Your task to perform on an android device: Show the shopping cart on ebay. Search for razer blade on ebay, select the first entry, add it to the cart, then select checkout. Image 0: 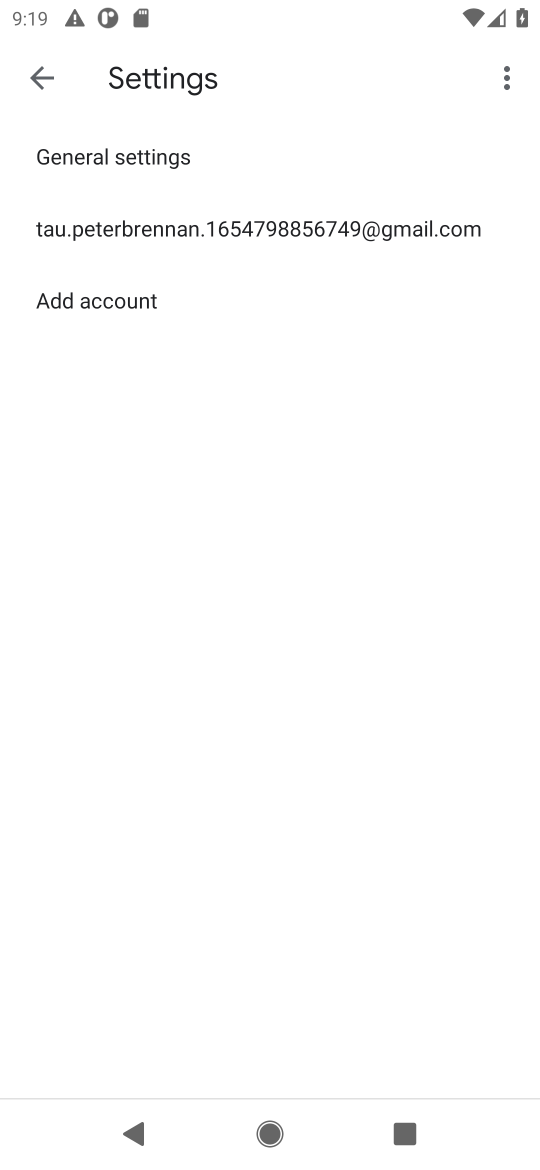
Step 0: press home button
Your task to perform on an android device: Show the shopping cart on ebay. Search for razer blade on ebay, select the first entry, add it to the cart, then select checkout. Image 1: 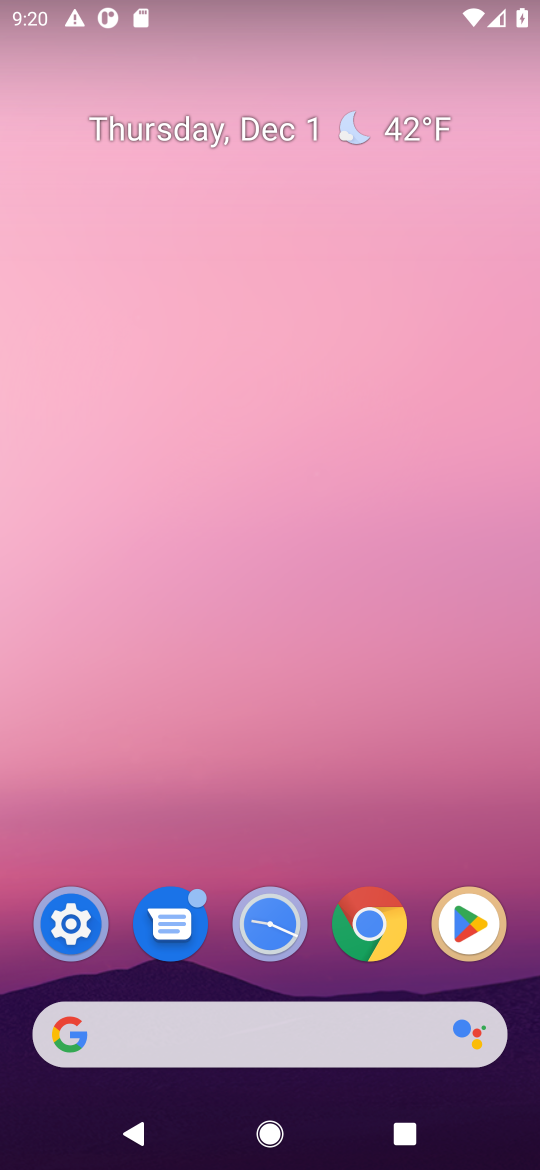
Step 1: click (226, 1056)
Your task to perform on an android device: Show the shopping cart on ebay. Search for razer blade on ebay, select the first entry, add it to the cart, then select checkout. Image 2: 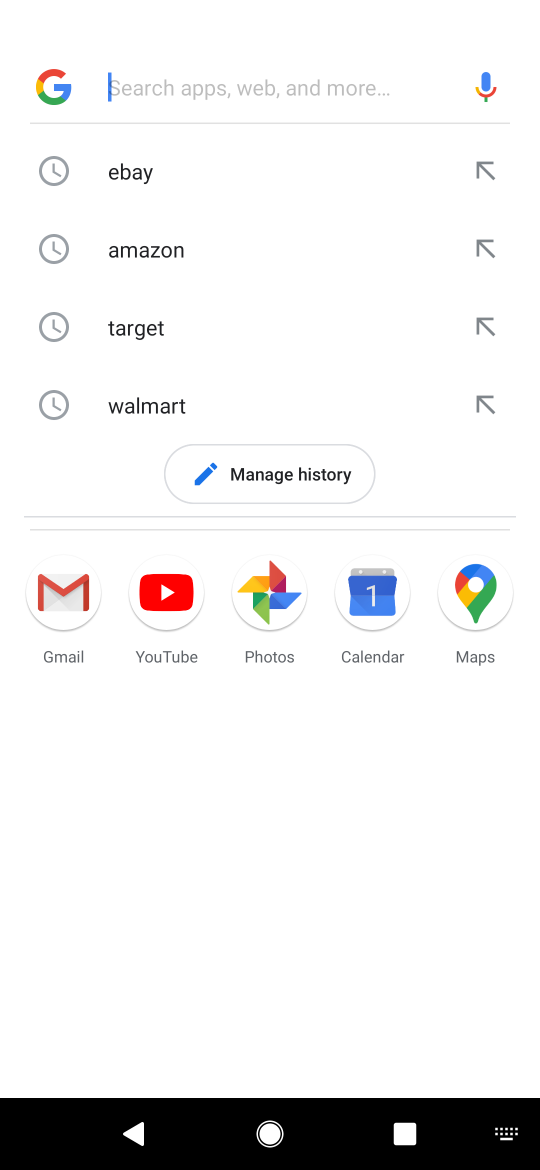
Step 2: click (244, 158)
Your task to perform on an android device: Show the shopping cart on ebay. Search for razer blade on ebay, select the first entry, add it to the cart, then select checkout. Image 3: 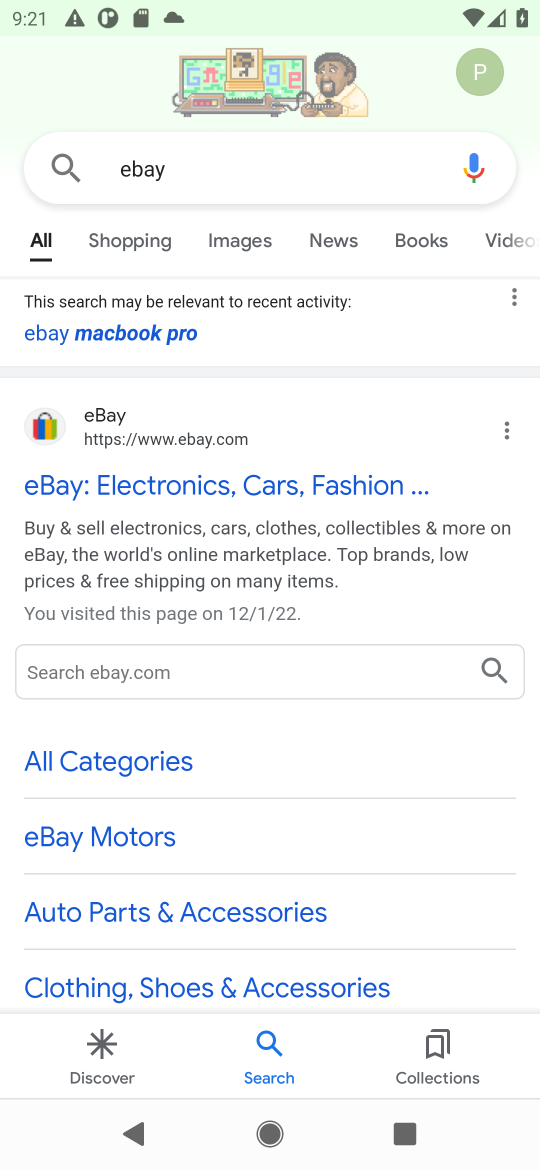
Step 3: click (101, 447)
Your task to perform on an android device: Show the shopping cart on ebay. Search for razer blade on ebay, select the first entry, add it to the cart, then select checkout. Image 4: 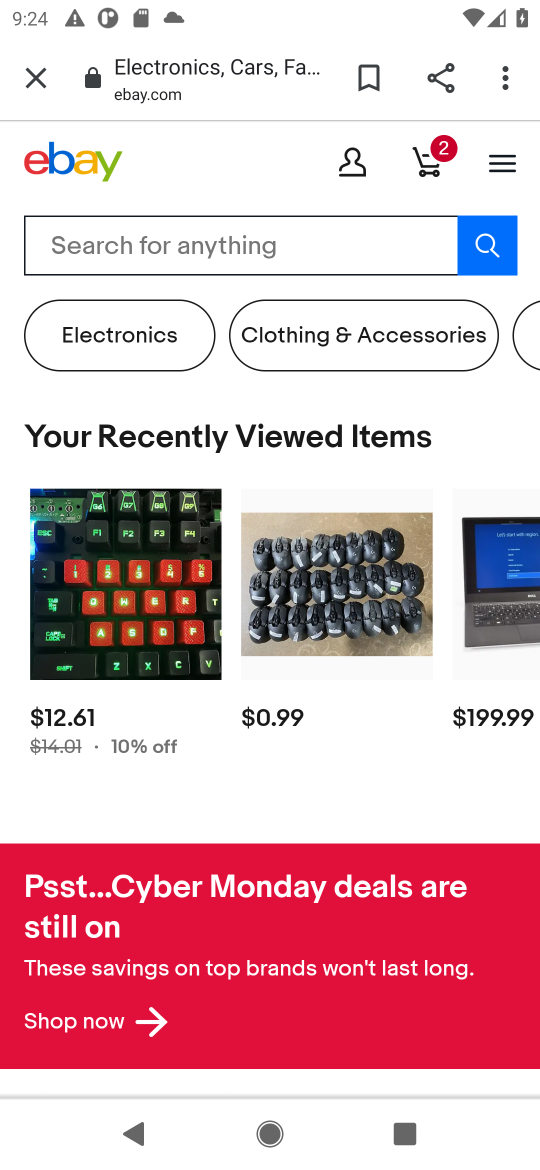
Step 4: click (311, 259)
Your task to perform on an android device: Show the shopping cart on ebay. Search for razer blade on ebay, select the first entry, add it to the cart, then select checkout. Image 5: 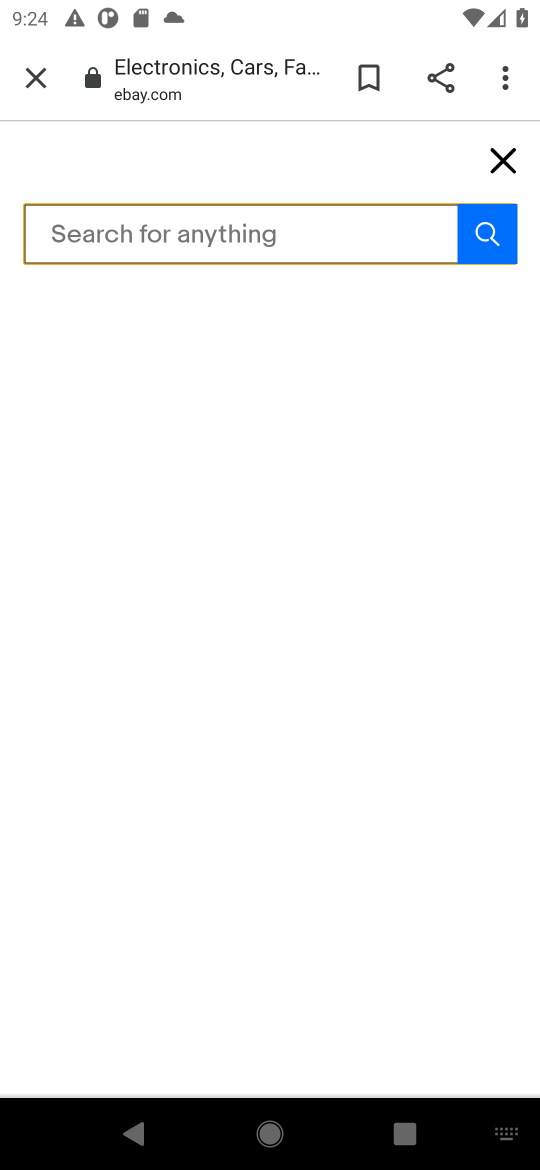
Step 5: type "razer nari"
Your task to perform on an android device: Show the shopping cart on ebay. Search for razer blade on ebay, select the first entry, add it to the cart, then select checkout. Image 6: 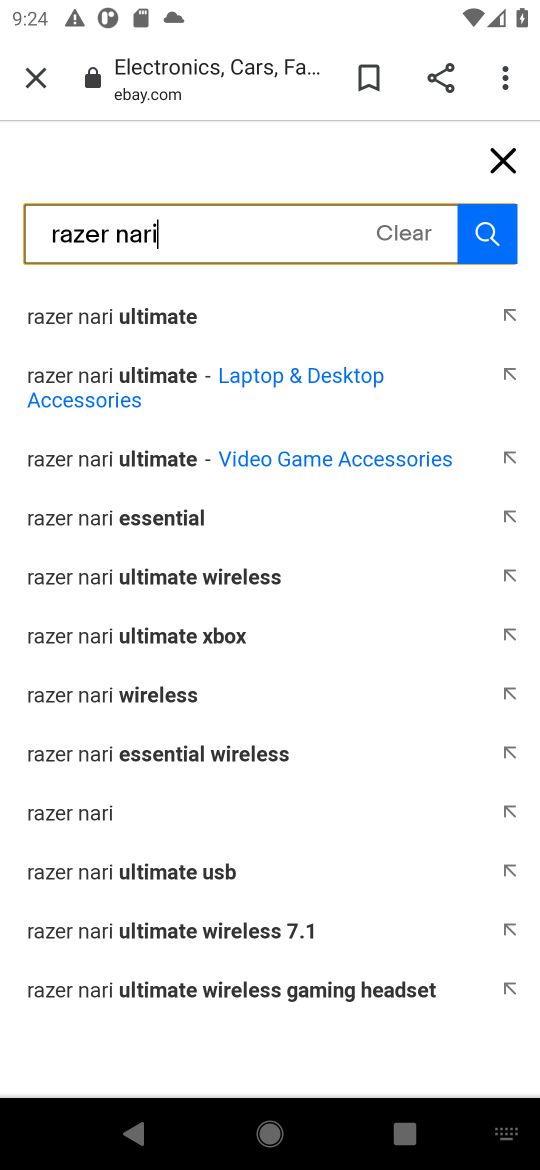
Step 6: click (158, 311)
Your task to perform on an android device: Show the shopping cart on ebay. Search for razer blade on ebay, select the first entry, add it to the cart, then select checkout. Image 7: 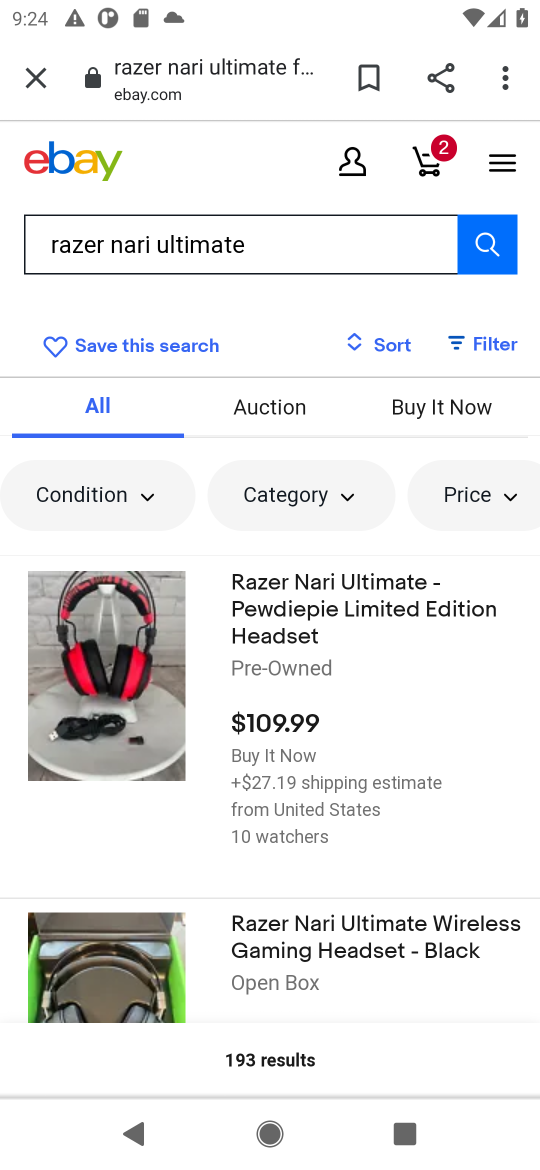
Step 7: click (244, 594)
Your task to perform on an android device: Show the shopping cart on ebay. Search for razer blade on ebay, select the first entry, add it to the cart, then select checkout. Image 8: 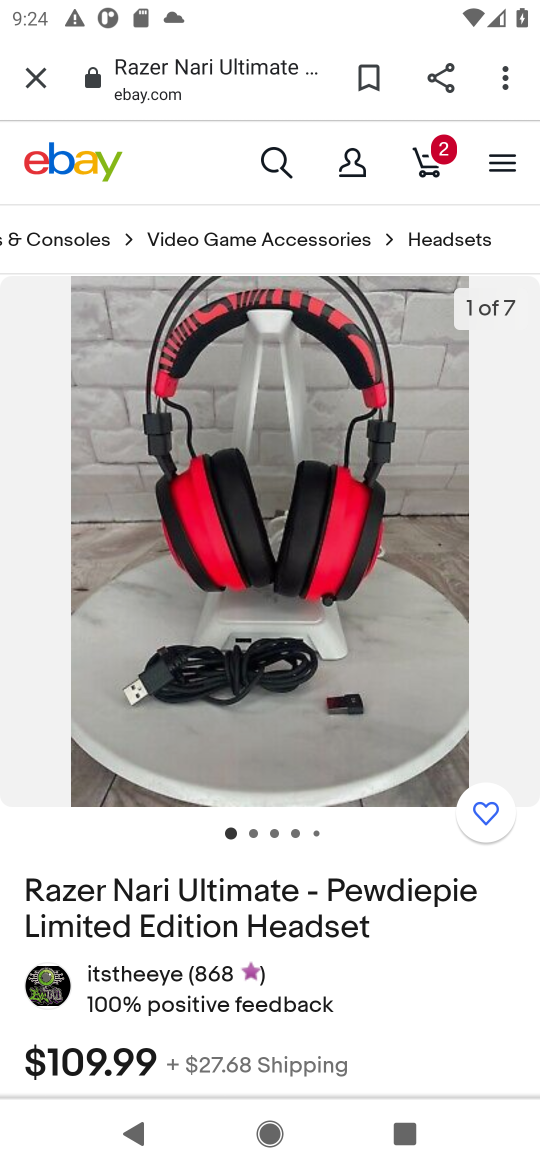
Step 8: task complete